Your task to perform on an android device: Go to ESPN.com Image 0: 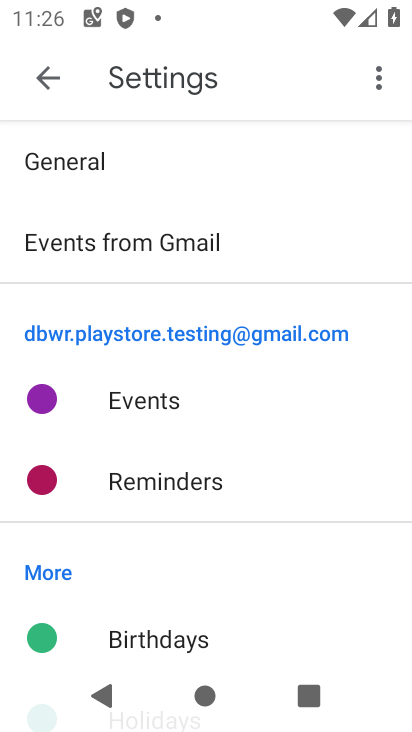
Step 0: press home button
Your task to perform on an android device: Go to ESPN.com Image 1: 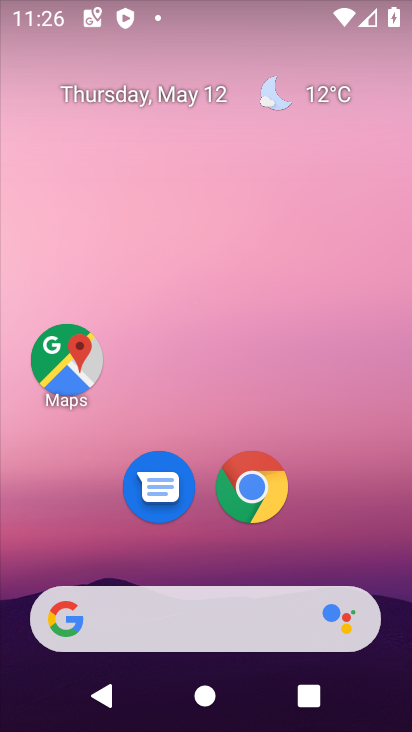
Step 1: click (256, 491)
Your task to perform on an android device: Go to ESPN.com Image 2: 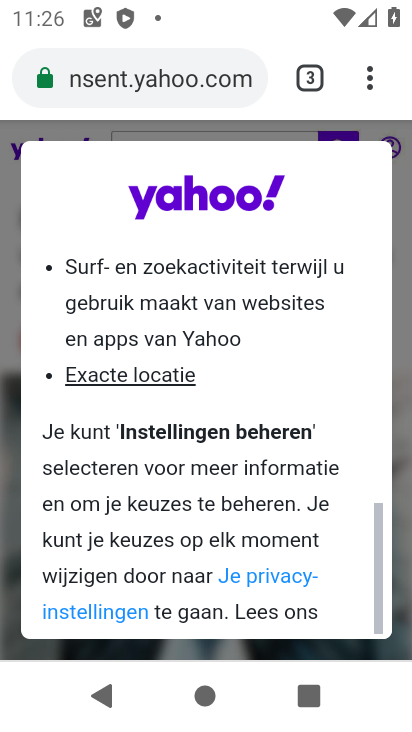
Step 2: click (114, 82)
Your task to perform on an android device: Go to ESPN.com Image 3: 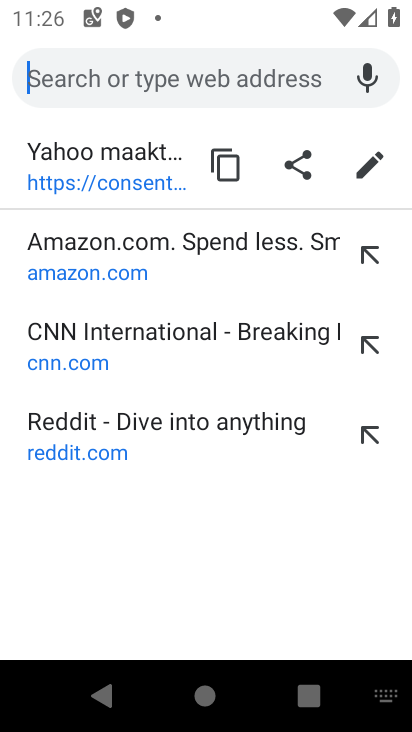
Step 3: type "espn.com"
Your task to perform on an android device: Go to ESPN.com Image 4: 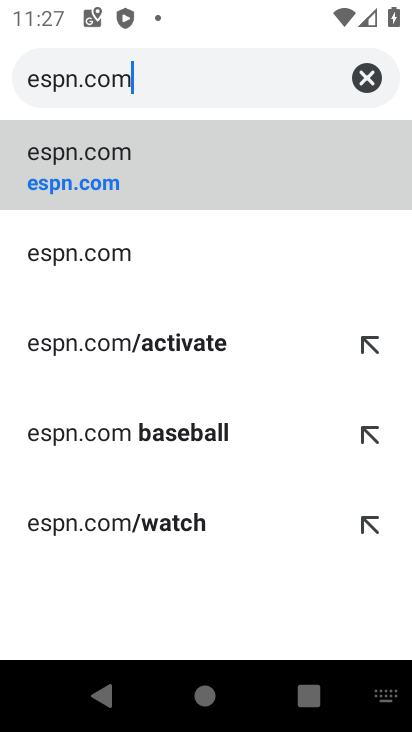
Step 4: click (84, 179)
Your task to perform on an android device: Go to ESPN.com Image 5: 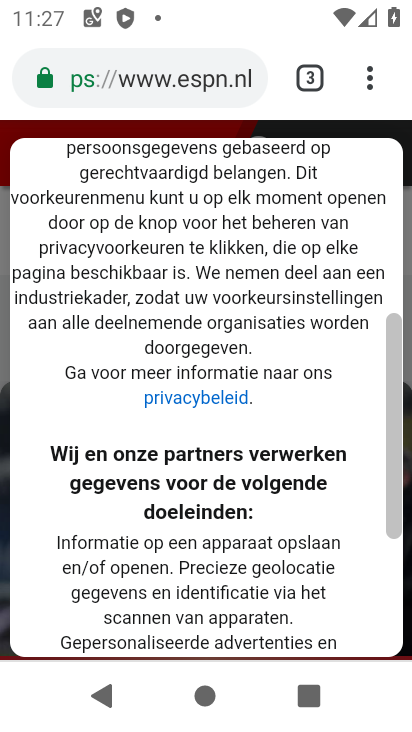
Step 5: task complete